Your task to perform on an android device: Open the Play Movies app and select the watchlist tab. Image 0: 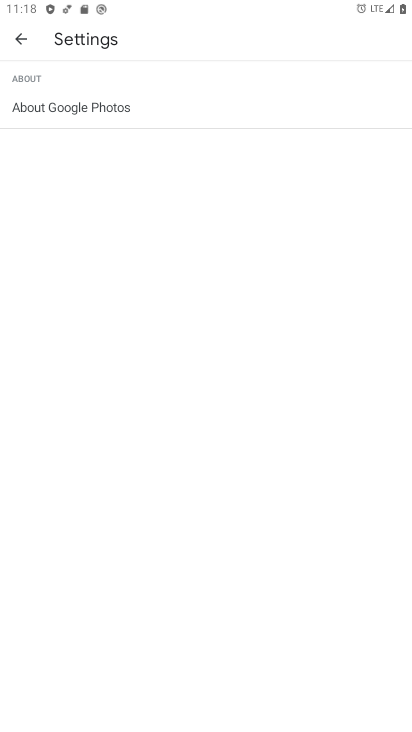
Step 0: press back button
Your task to perform on an android device: Open the Play Movies app and select the watchlist tab. Image 1: 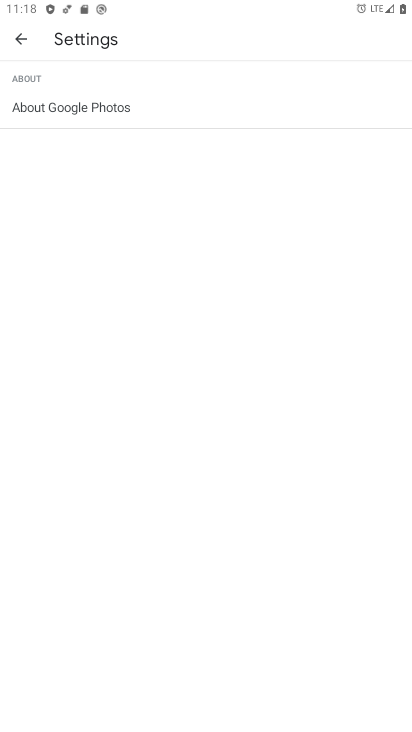
Step 1: press back button
Your task to perform on an android device: Open the Play Movies app and select the watchlist tab. Image 2: 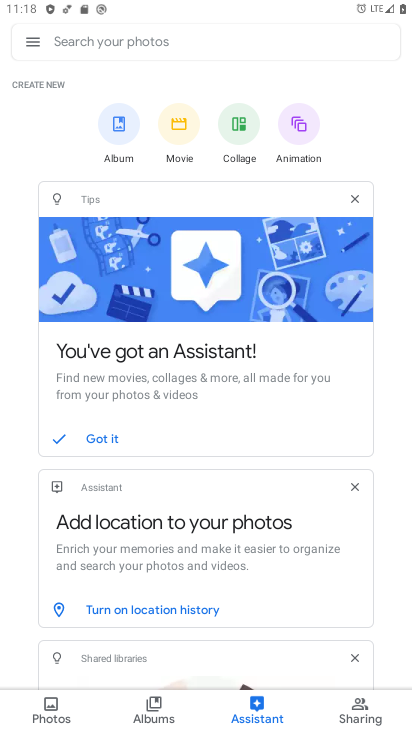
Step 2: press back button
Your task to perform on an android device: Open the Play Movies app and select the watchlist tab. Image 3: 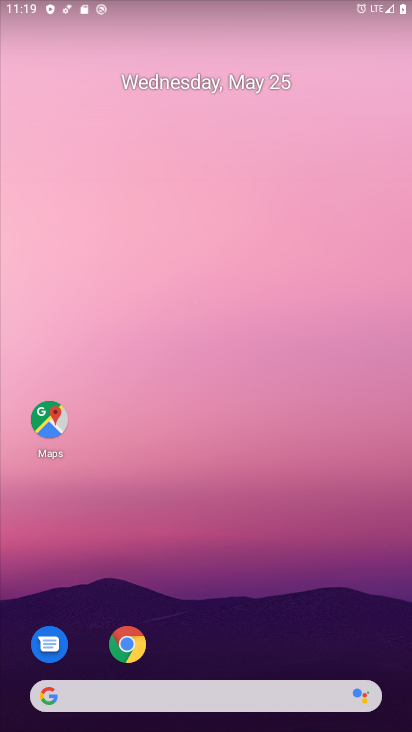
Step 3: drag from (239, 615) to (145, 165)
Your task to perform on an android device: Open the Play Movies app and select the watchlist tab. Image 4: 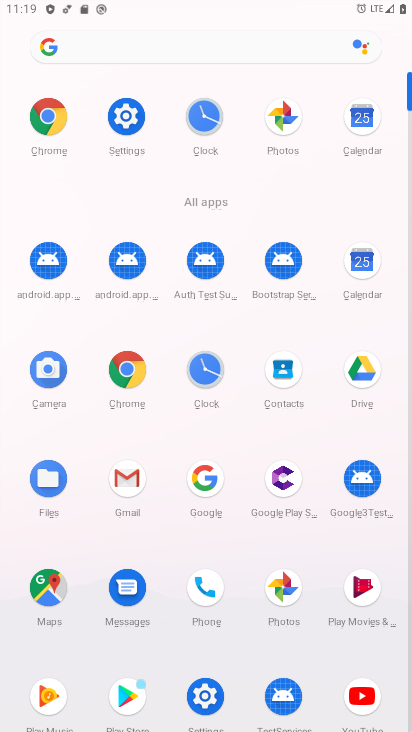
Step 4: click (364, 591)
Your task to perform on an android device: Open the Play Movies app and select the watchlist tab. Image 5: 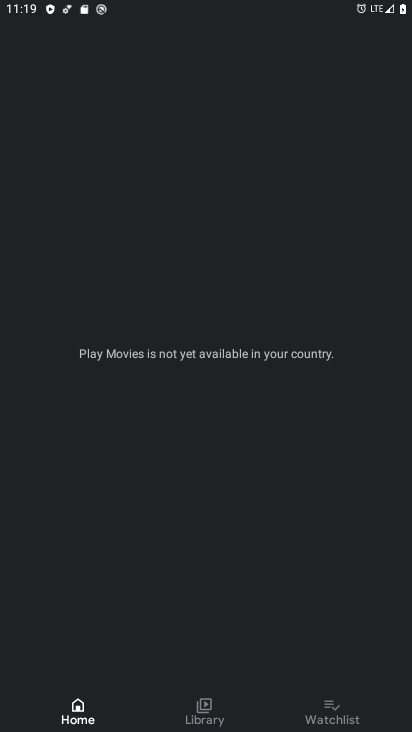
Step 5: click (332, 704)
Your task to perform on an android device: Open the Play Movies app and select the watchlist tab. Image 6: 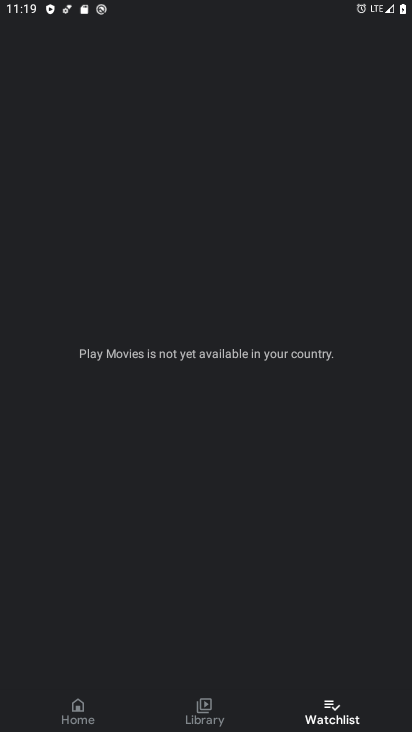
Step 6: task complete